Your task to perform on an android device: empty trash in google photos Image 0: 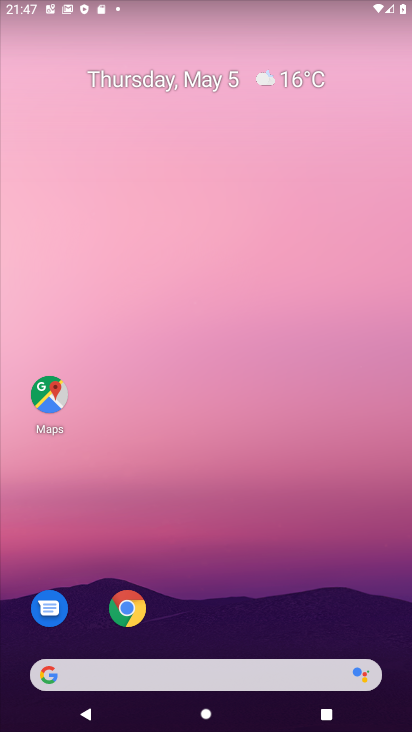
Step 0: drag from (276, 588) to (264, 54)
Your task to perform on an android device: empty trash in google photos Image 1: 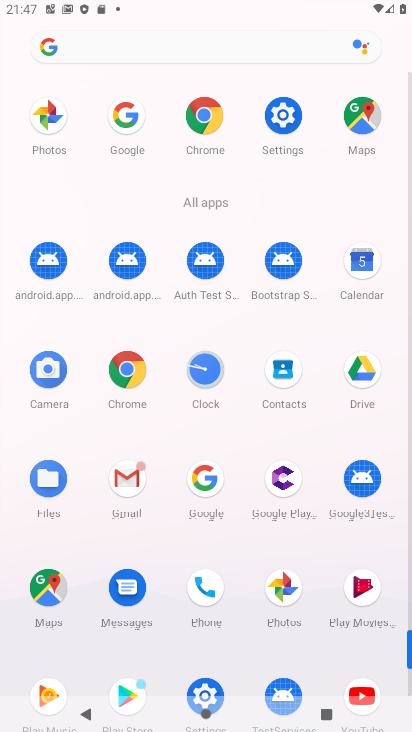
Step 1: click (279, 589)
Your task to perform on an android device: empty trash in google photos Image 2: 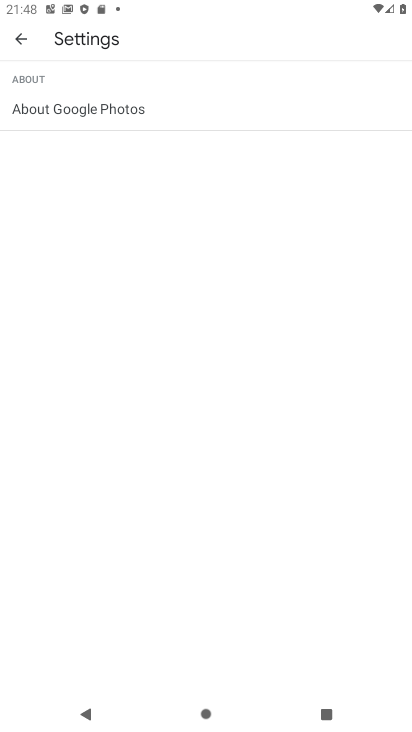
Step 2: click (22, 40)
Your task to perform on an android device: empty trash in google photos Image 3: 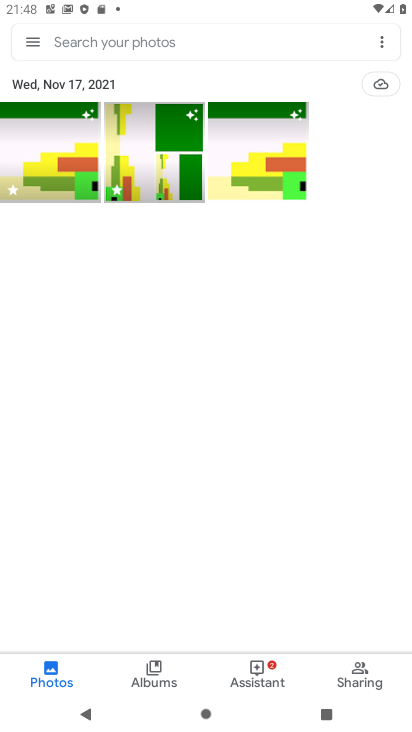
Step 3: click (41, 42)
Your task to perform on an android device: empty trash in google photos Image 4: 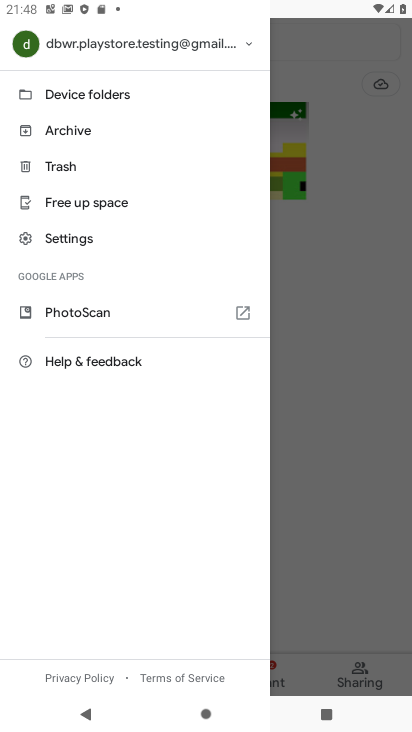
Step 4: click (61, 170)
Your task to perform on an android device: empty trash in google photos Image 5: 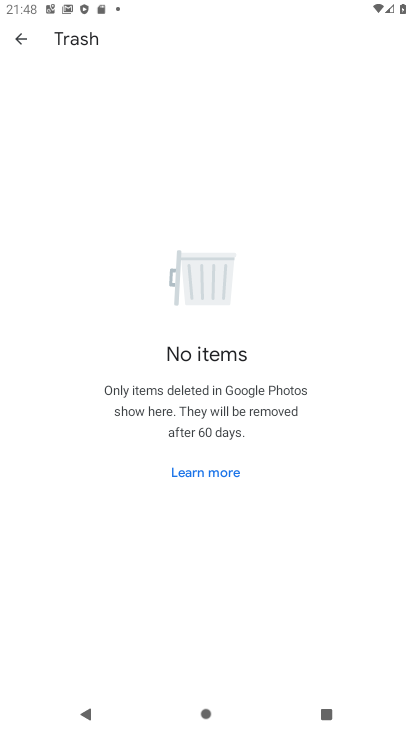
Step 5: task complete